Your task to perform on an android device: all mails in gmail Image 0: 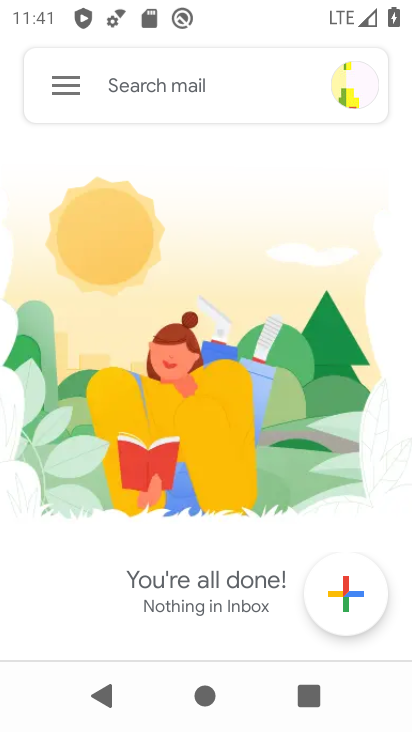
Step 0: click (65, 99)
Your task to perform on an android device: all mails in gmail Image 1: 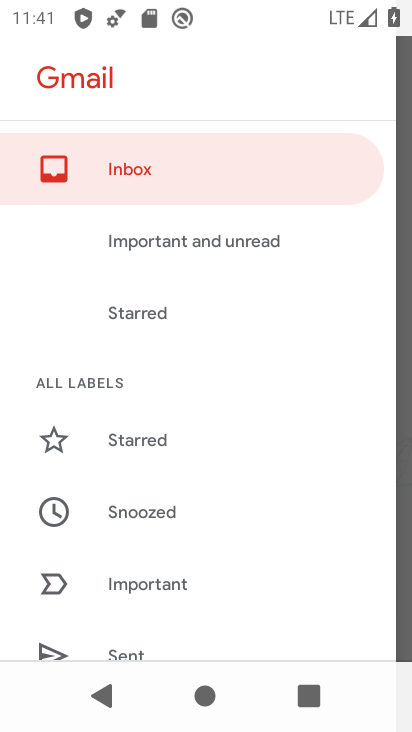
Step 1: press home button
Your task to perform on an android device: all mails in gmail Image 2: 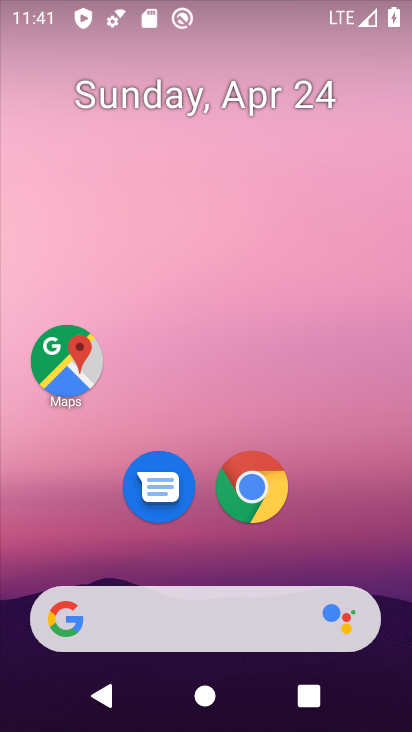
Step 2: drag from (186, 208) to (210, 1)
Your task to perform on an android device: all mails in gmail Image 3: 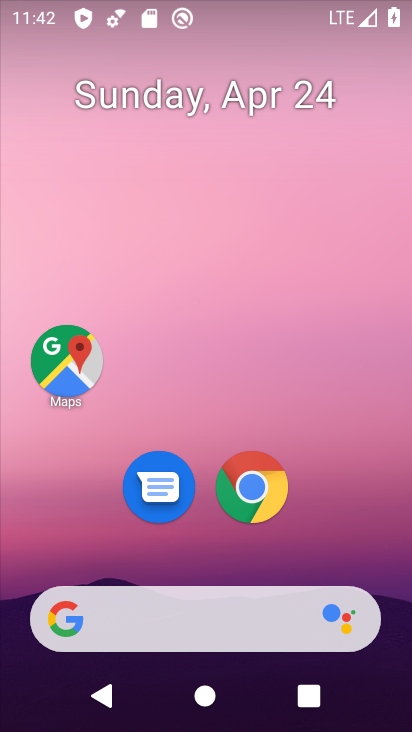
Step 3: drag from (212, 570) to (261, 81)
Your task to perform on an android device: all mails in gmail Image 4: 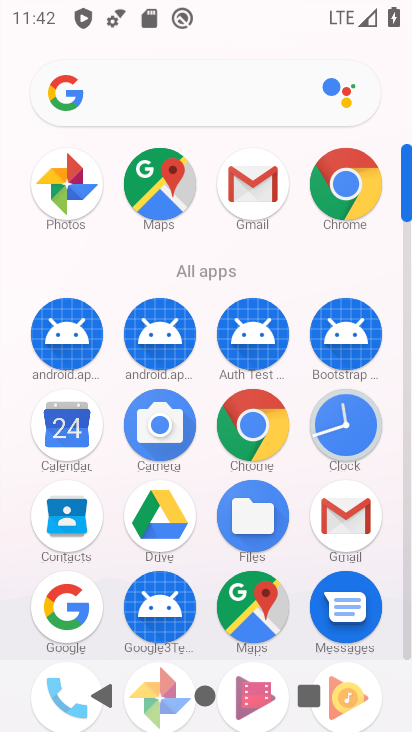
Step 4: drag from (120, 484) to (186, 4)
Your task to perform on an android device: all mails in gmail Image 5: 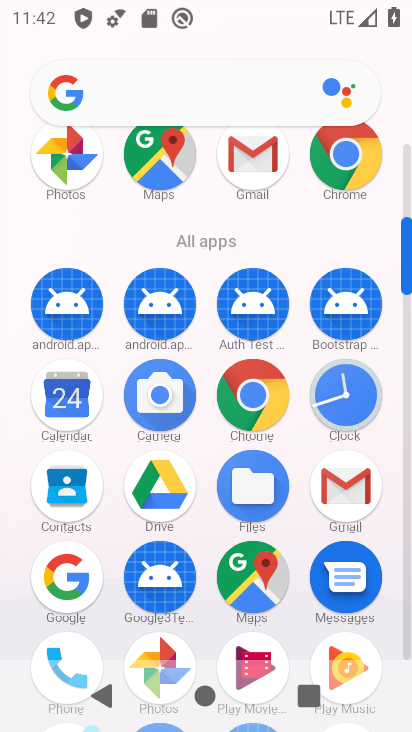
Step 5: drag from (409, 272) to (394, 681)
Your task to perform on an android device: all mails in gmail Image 6: 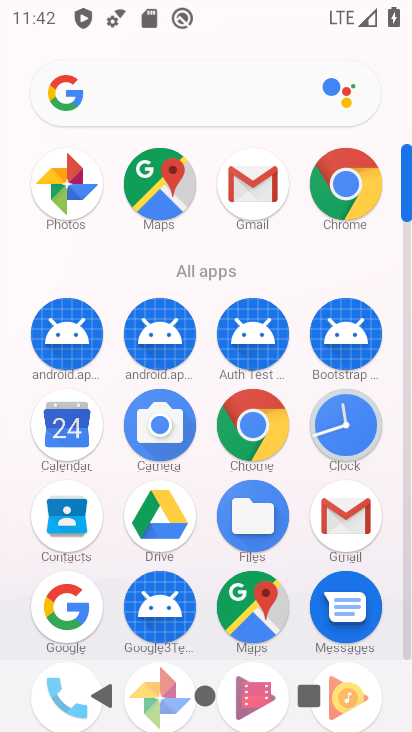
Step 6: drag from (407, 184) to (410, 542)
Your task to perform on an android device: all mails in gmail Image 7: 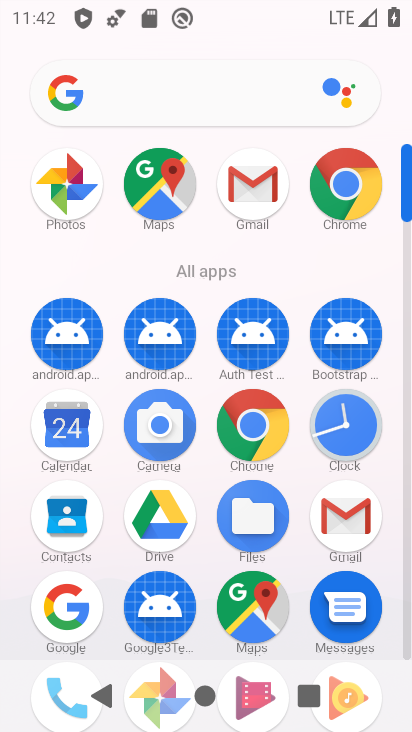
Step 7: drag from (383, 603) to (396, 135)
Your task to perform on an android device: all mails in gmail Image 8: 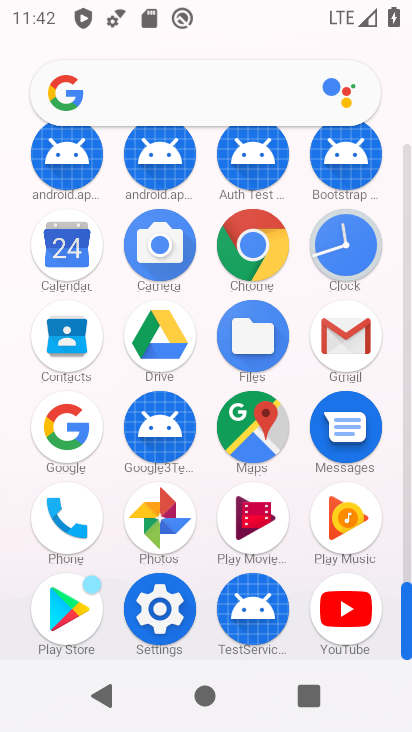
Step 8: click (161, 580)
Your task to perform on an android device: all mails in gmail Image 9: 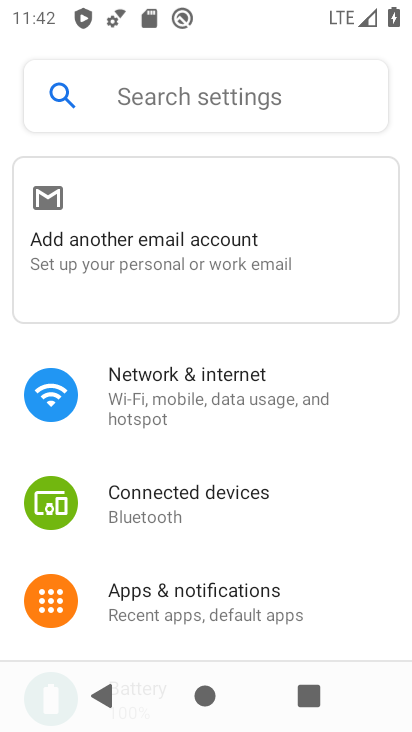
Step 9: click (215, 401)
Your task to perform on an android device: all mails in gmail Image 10: 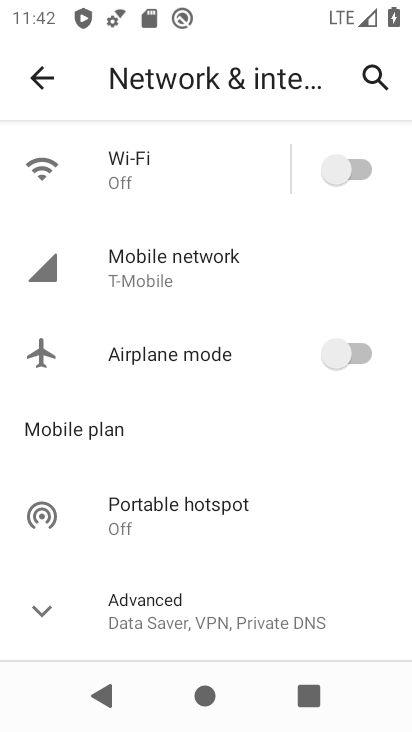
Step 10: click (334, 161)
Your task to perform on an android device: all mails in gmail Image 11: 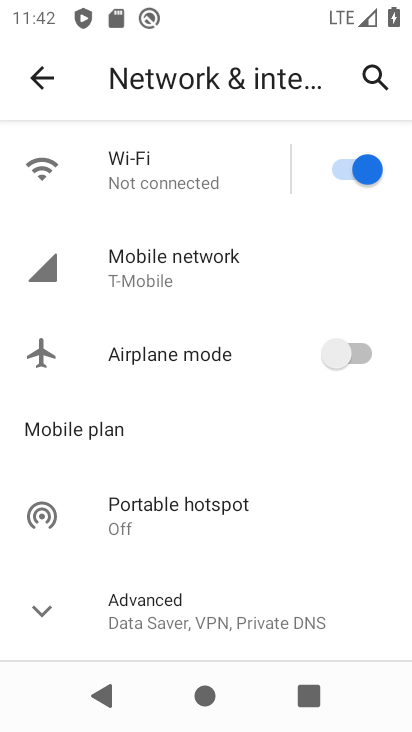
Step 11: task complete